Your task to perform on an android device: Open Wikipedia Image 0: 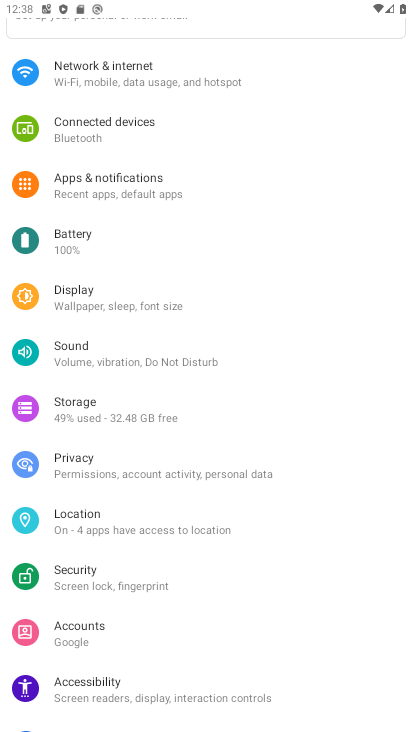
Step 0: press home button
Your task to perform on an android device: Open Wikipedia Image 1: 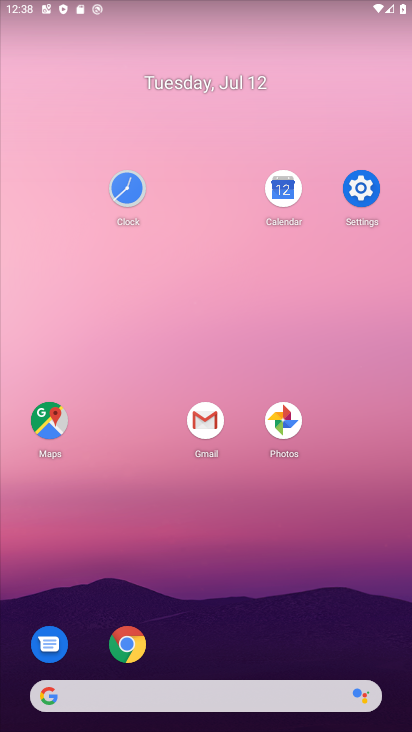
Step 1: click (119, 649)
Your task to perform on an android device: Open Wikipedia Image 2: 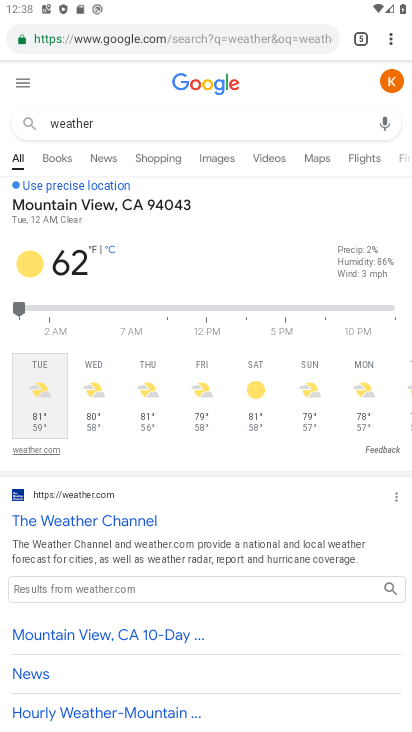
Step 2: click (362, 42)
Your task to perform on an android device: Open Wikipedia Image 3: 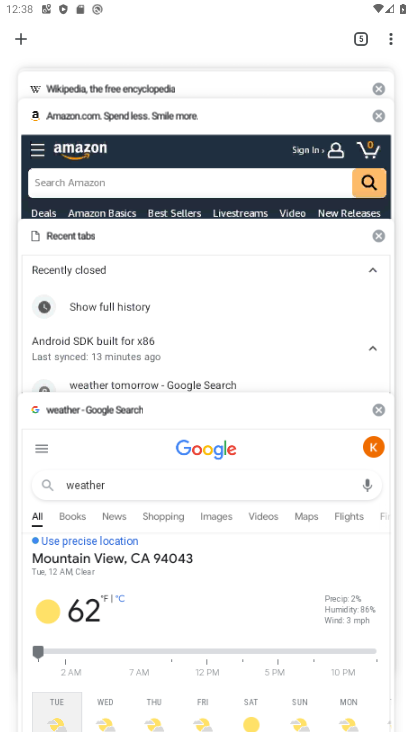
Step 3: drag from (242, 163) to (225, 399)
Your task to perform on an android device: Open Wikipedia Image 4: 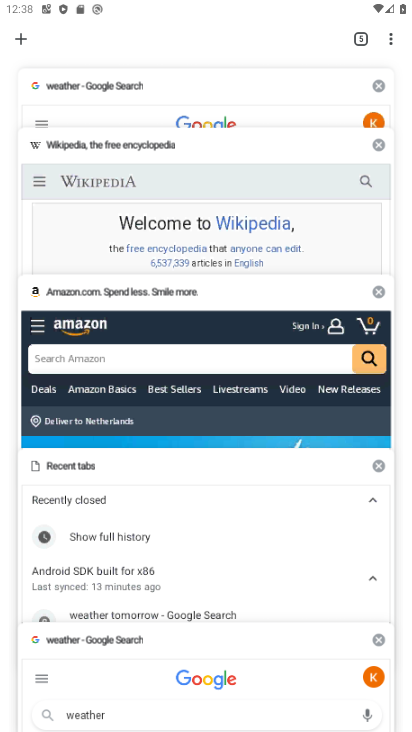
Step 4: click (172, 159)
Your task to perform on an android device: Open Wikipedia Image 5: 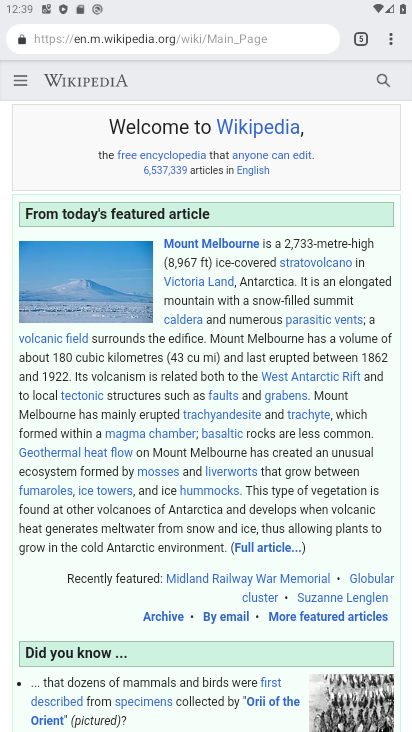
Step 5: task complete